Your task to perform on an android device: turn on priority inbox in the gmail app Image 0: 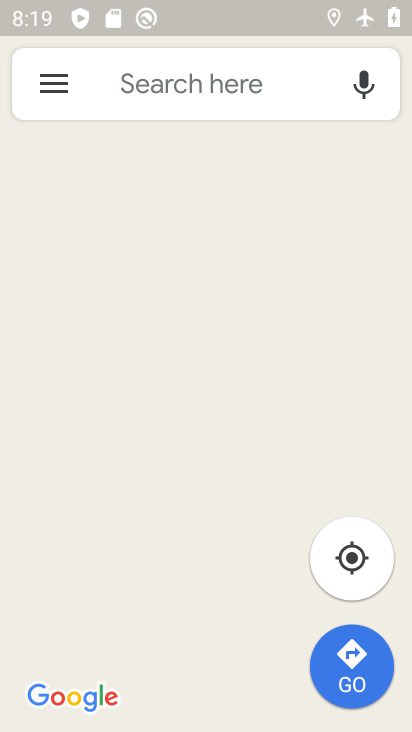
Step 0: press home button
Your task to perform on an android device: turn on priority inbox in the gmail app Image 1: 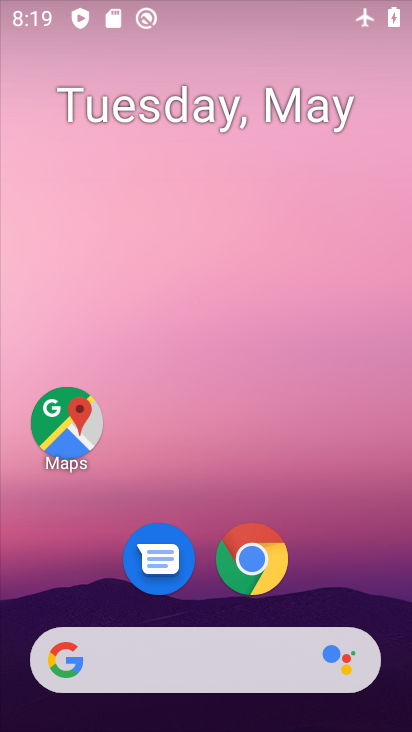
Step 1: drag from (195, 602) to (216, 217)
Your task to perform on an android device: turn on priority inbox in the gmail app Image 2: 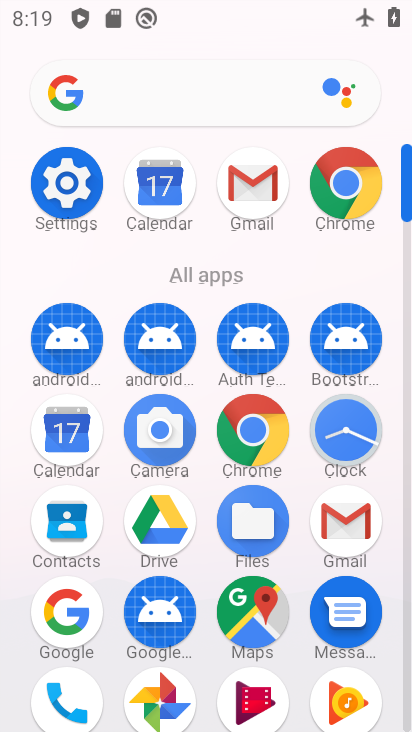
Step 2: click (331, 542)
Your task to perform on an android device: turn on priority inbox in the gmail app Image 3: 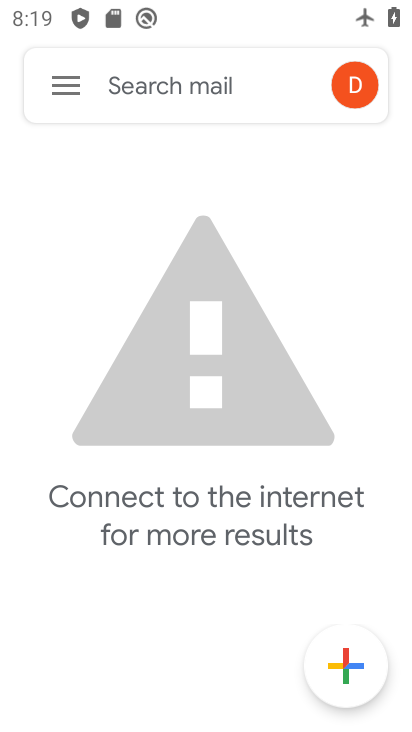
Step 3: click (66, 81)
Your task to perform on an android device: turn on priority inbox in the gmail app Image 4: 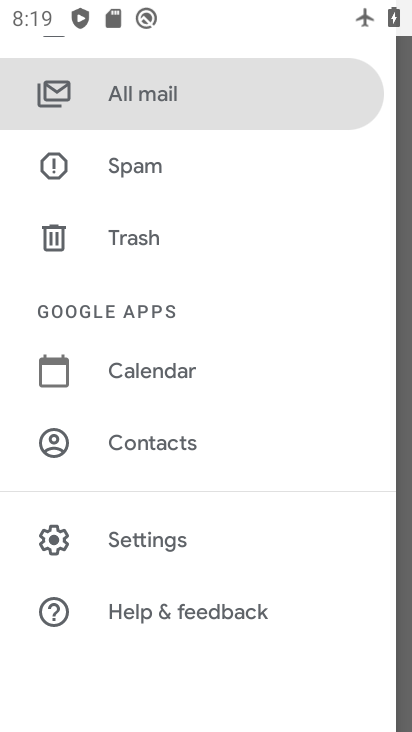
Step 4: click (160, 546)
Your task to perform on an android device: turn on priority inbox in the gmail app Image 5: 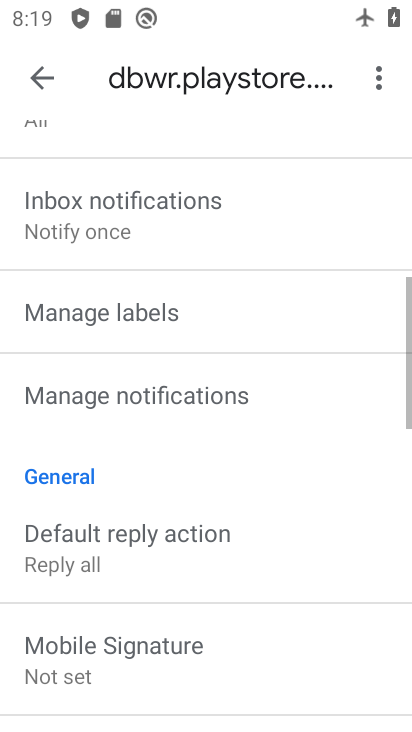
Step 5: drag from (199, 541) to (199, 406)
Your task to perform on an android device: turn on priority inbox in the gmail app Image 6: 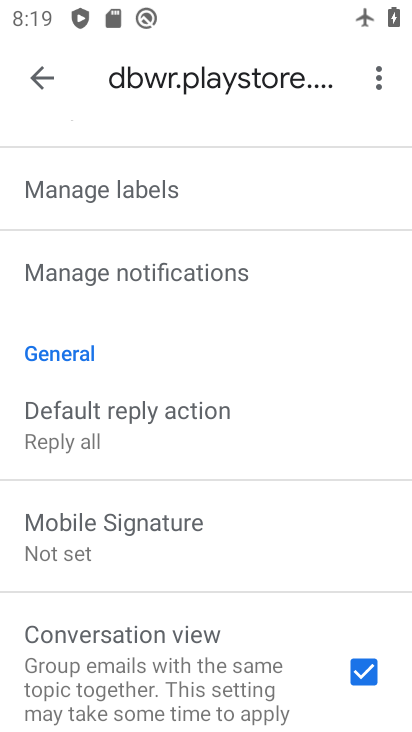
Step 6: drag from (187, 269) to (207, 555)
Your task to perform on an android device: turn on priority inbox in the gmail app Image 7: 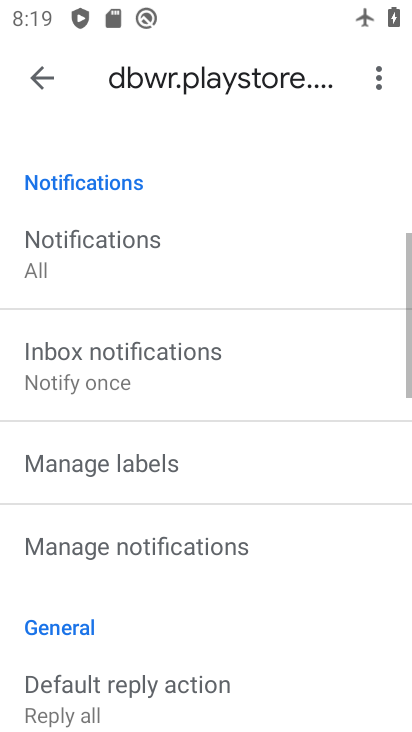
Step 7: drag from (214, 306) to (228, 559)
Your task to perform on an android device: turn on priority inbox in the gmail app Image 8: 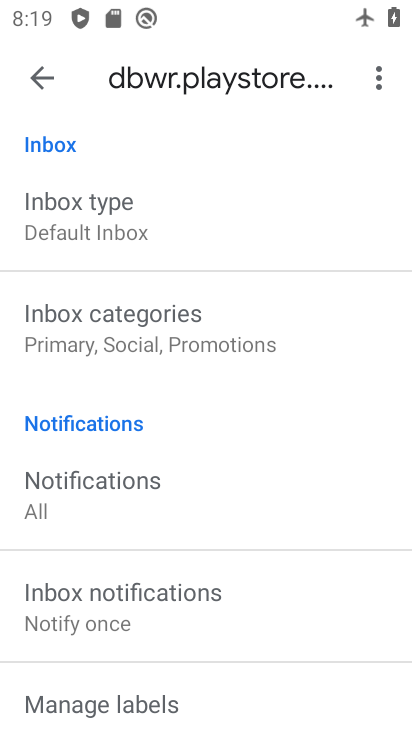
Step 8: drag from (186, 253) to (206, 561)
Your task to perform on an android device: turn on priority inbox in the gmail app Image 9: 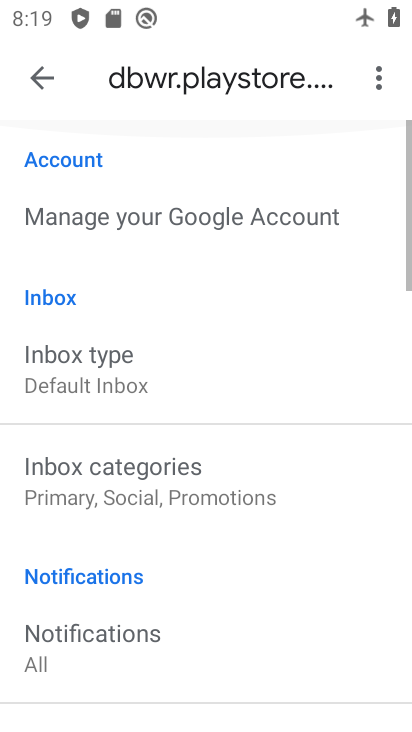
Step 9: drag from (187, 315) to (194, 408)
Your task to perform on an android device: turn on priority inbox in the gmail app Image 10: 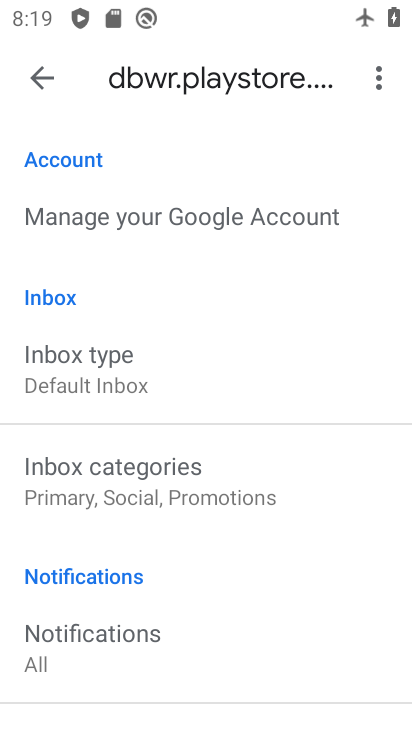
Step 10: click (120, 372)
Your task to perform on an android device: turn on priority inbox in the gmail app Image 11: 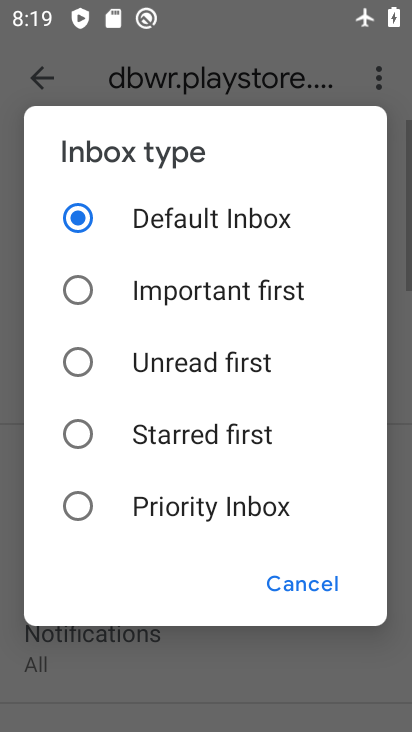
Step 11: click (199, 500)
Your task to perform on an android device: turn on priority inbox in the gmail app Image 12: 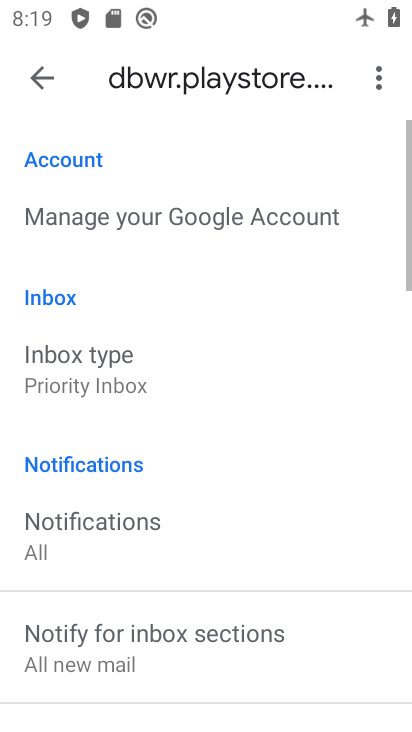
Step 12: task complete